Your task to perform on an android device: empty trash in the gmail app Image 0: 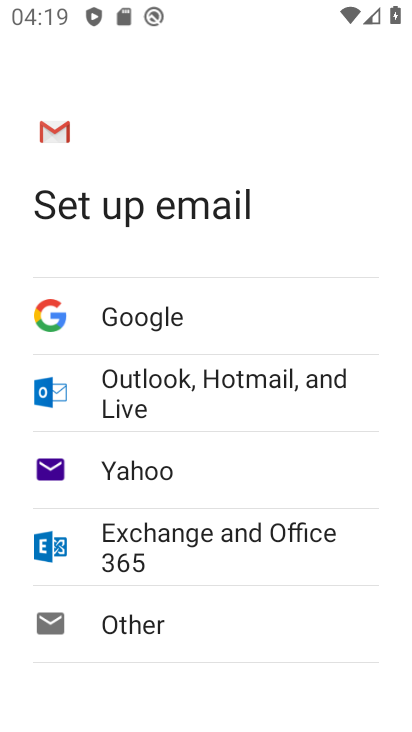
Step 0: press home button
Your task to perform on an android device: empty trash in the gmail app Image 1: 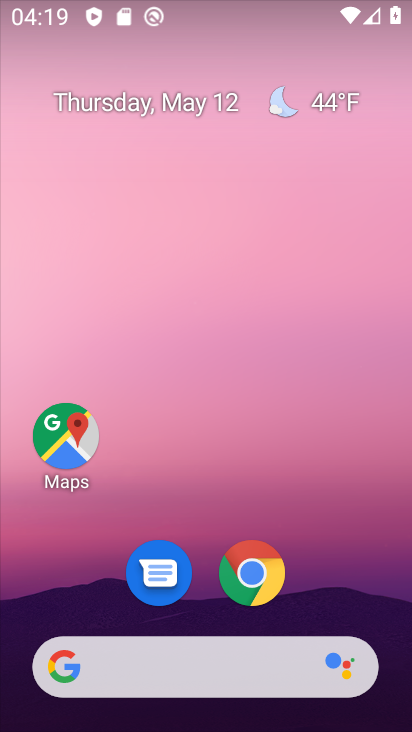
Step 1: drag from (400, 642) to (249, 76)
Your task to perform on an android device: empty trash in the gmail app Image 2: 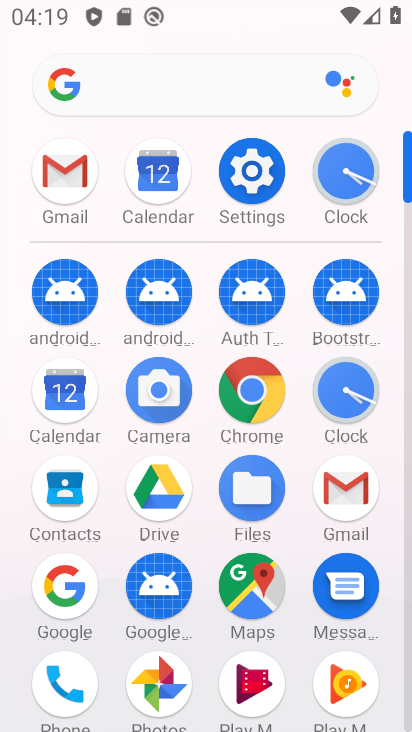
Step 2: click (348, 487)
Your task to perform on an android device: empty trash in the gmail app Image 3: 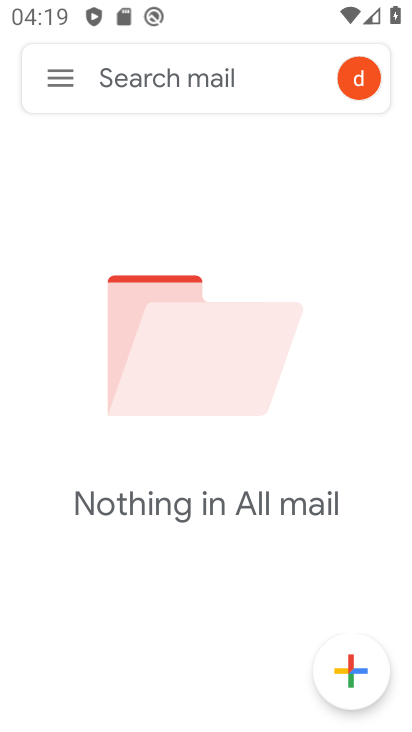
Step 3: click (56, 72)
Your task to perform on an android device: empty trash in the gmail app Image 4: 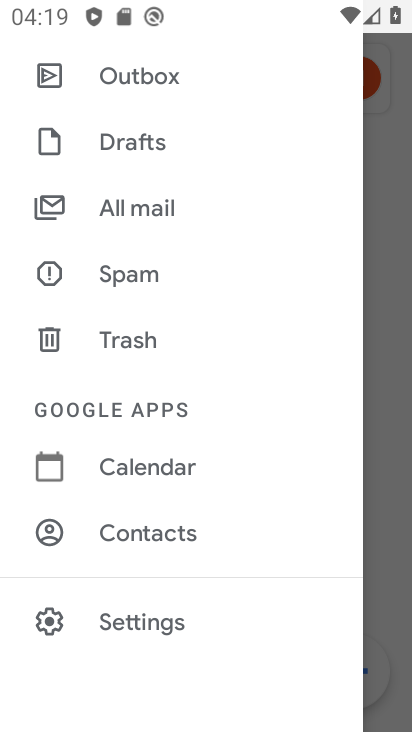
Step 4: click (128, 335)
Your task to perform on an android device: empty trash in the gmail app Image 5: 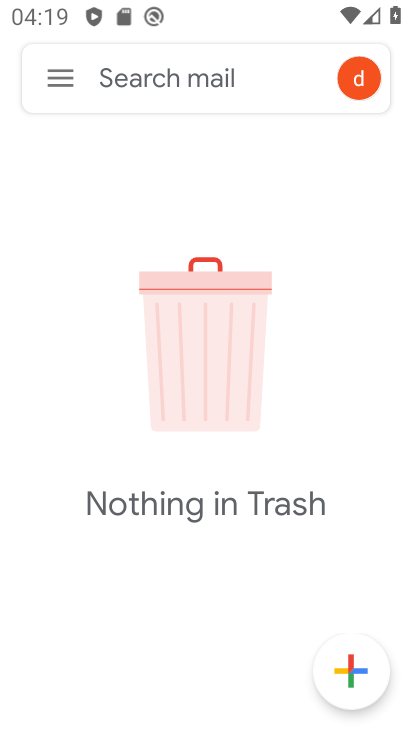
Step 5: task complete